Your task to perform on an android device: turn off location Image 0: 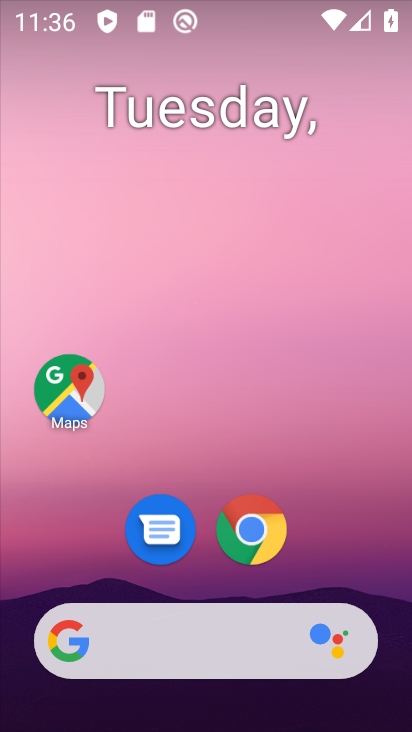
Step 0: drag from (138, 591) to (215, 230)
Your task to perform on an android device: turn off location Image 1: 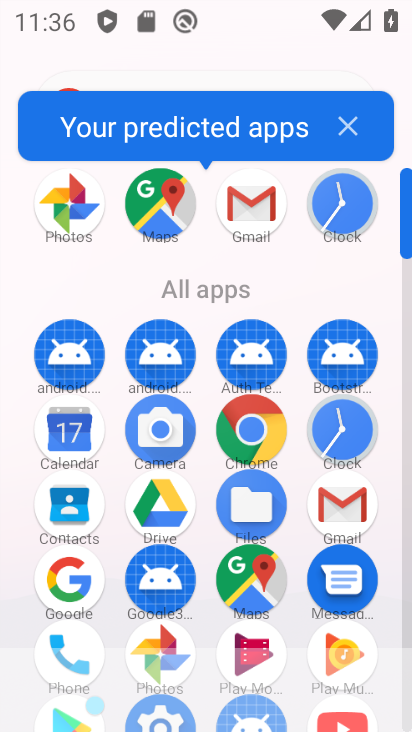
Step 1: drag from (173, 554) to (230, 325)
Your task to perform on an android device: turn off location Image 2: 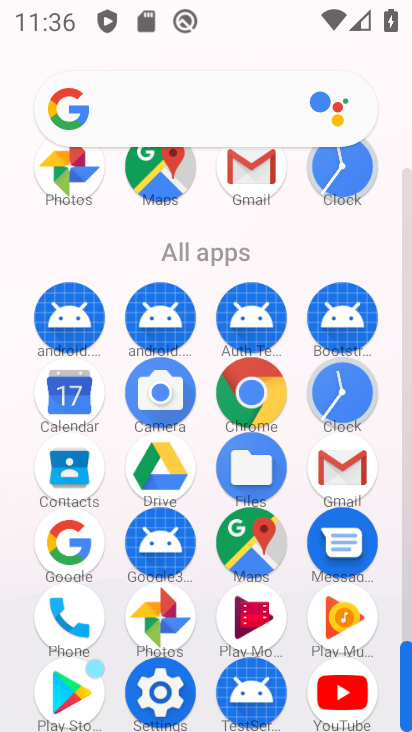
Step 2: click (127, 697)
Your task to perform on an android device: turn off location Image 3: 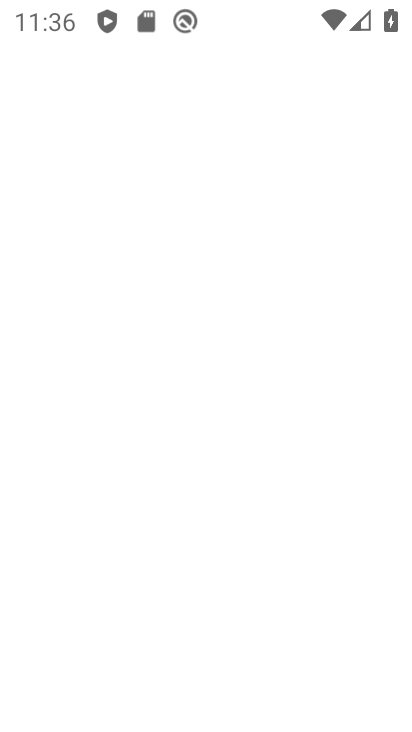
Step 3: click (156, 703)
Your task to perform on an android device: turn off location Image 4: 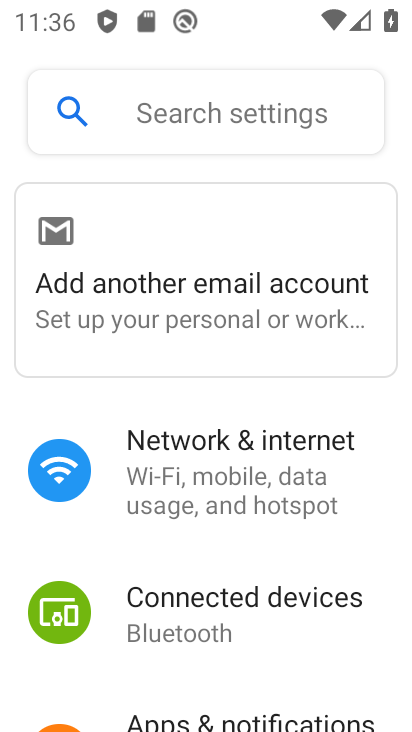
Step 4: drag from (194, 635) to (312, 275)
Your task to perform on an android device: turn off location Image 5: 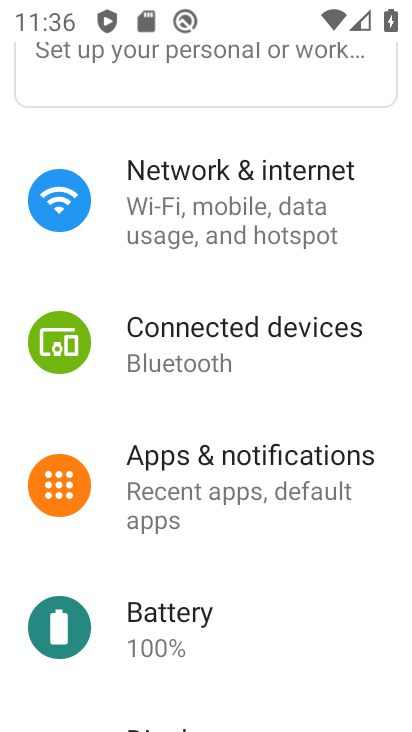
Step 5: drag from (148, 631) to (272, 173)
Your task to perform on an android device: turn off location Image 6: 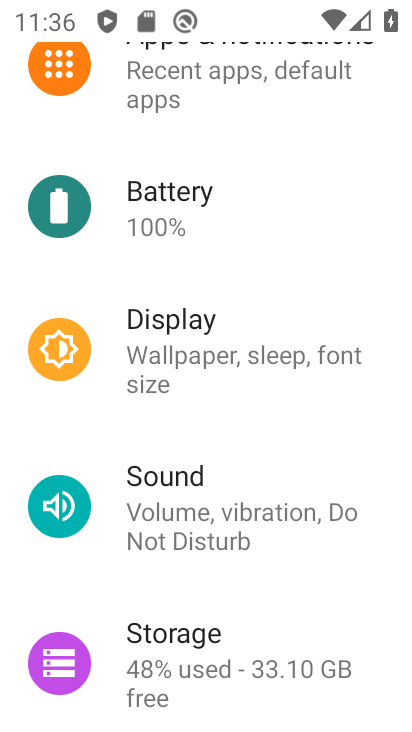
Step 6: drag from (174, 551) to (266, 167)
Your task to perform on an android device: turn off location Image 7: 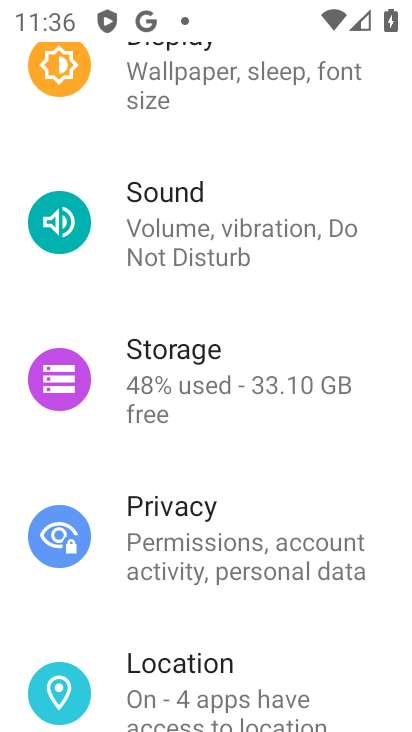
Step 7: click (160, 646)
Your task to perform on an android device: turn off location Image 8: 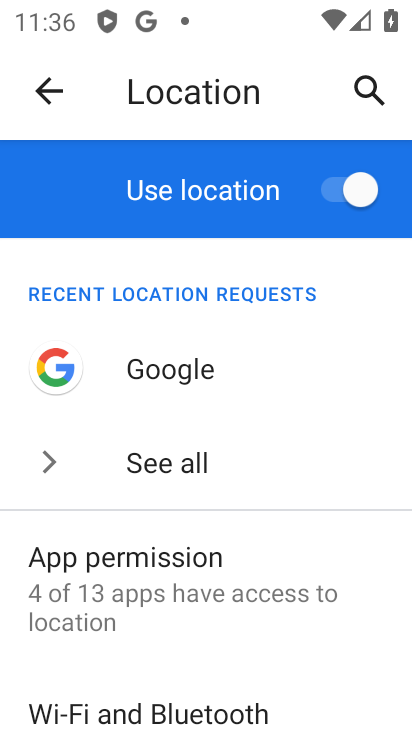
Step 8: click (333, 183)
Your task to perform on an android device: turn off location Image 9: 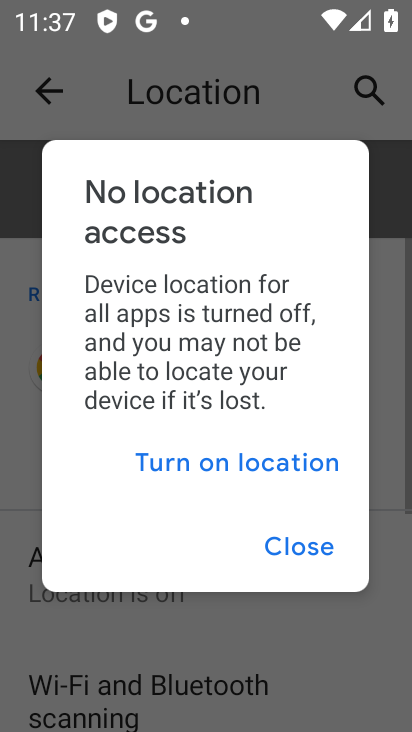
Step 9: task complete